Your task to perform on an android device: Open calendar and show me the first week of next month Image 0: 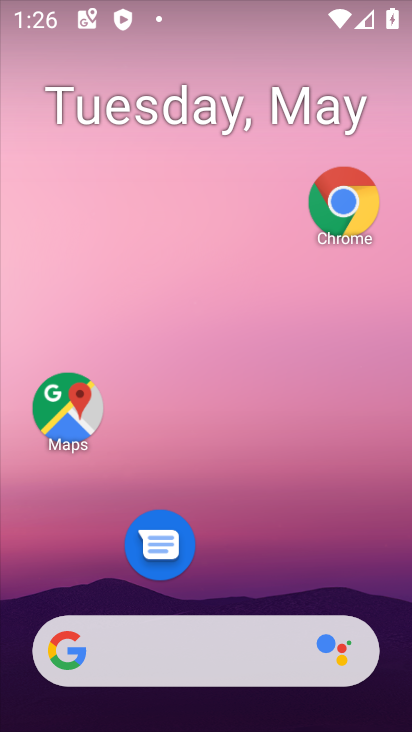
Step 0: click (257, 156)
Your task to perform on an android device: Open calendar and show me the first week of next month Image 1: 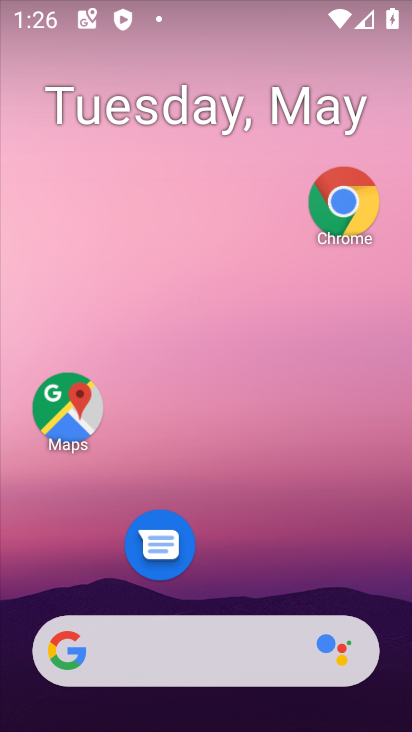
Step 1: click (168, 122)
Your task to perform on an android device: Open calendar and show me the first week of next month Image 2: 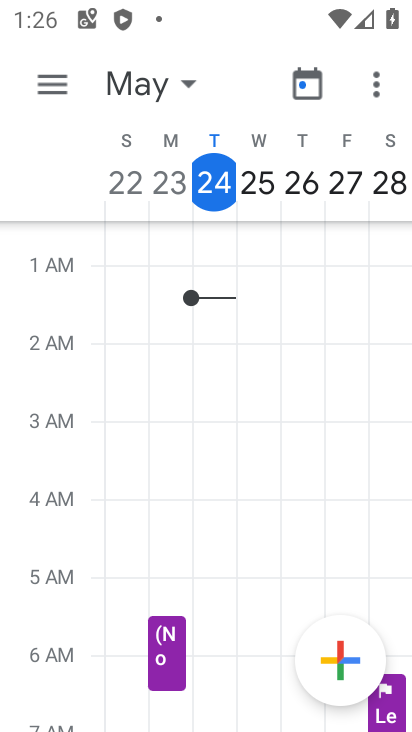
Step 2: click (163, 94)
Your task to perform on an android device: Open calendar and show me the first week of next month Image 3: 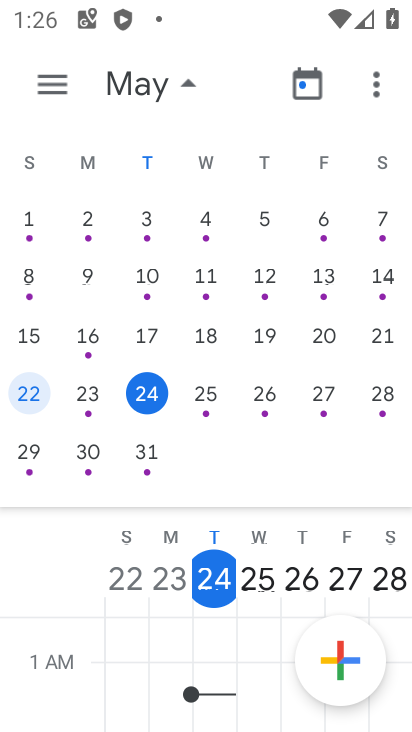
Step 3: drag from (381, 449) to (9, 459)
Your task to perform on an android device: Open calendar and show me the first week of next month Image 4: 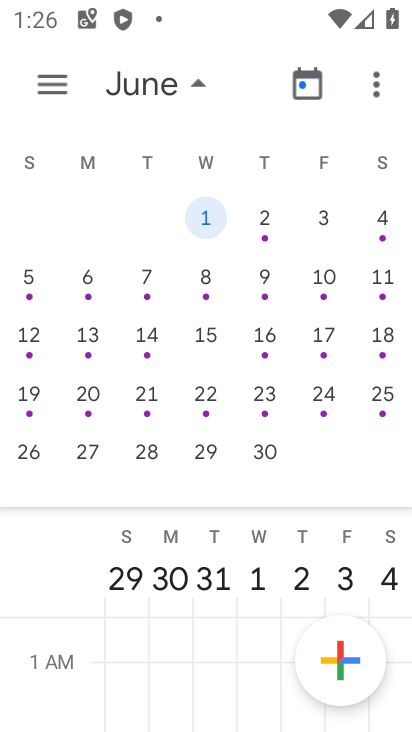
Step 4: click (261, 223)
Your task to perform on an android device: Open calendar and show me the first week of next month Image 5: 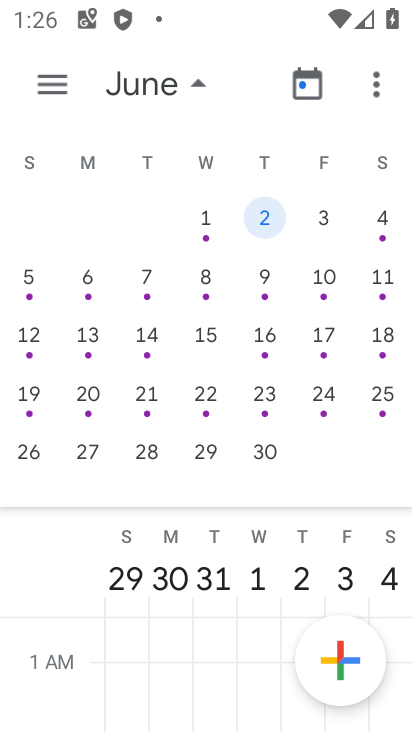
Step 5: task complete